Your task to perform on an android device: Go to Android settings Image 0: 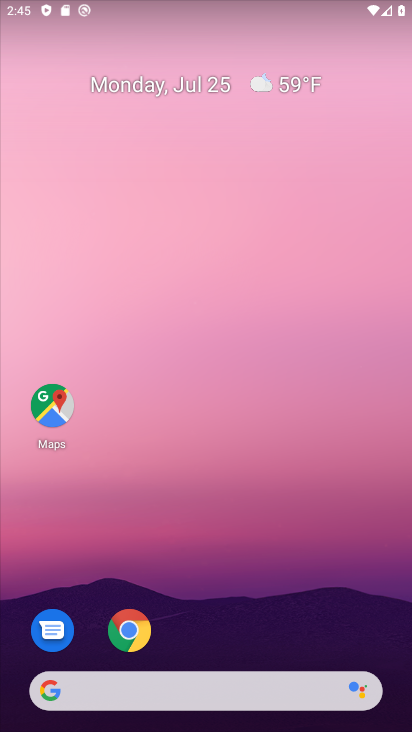
Step 0: drag from (268, 645) to (254, 5)
Your task to perform on an android device: Go to Android settings Image 1: 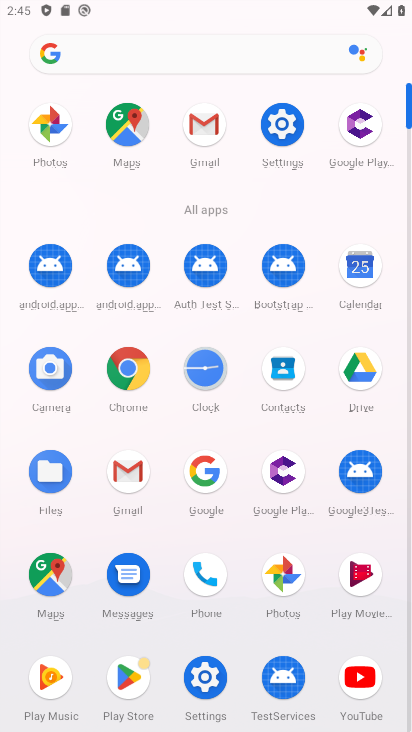
Step 1: click (290, 135)
Your task to perform on an android device: Go to Android settings Image 2: 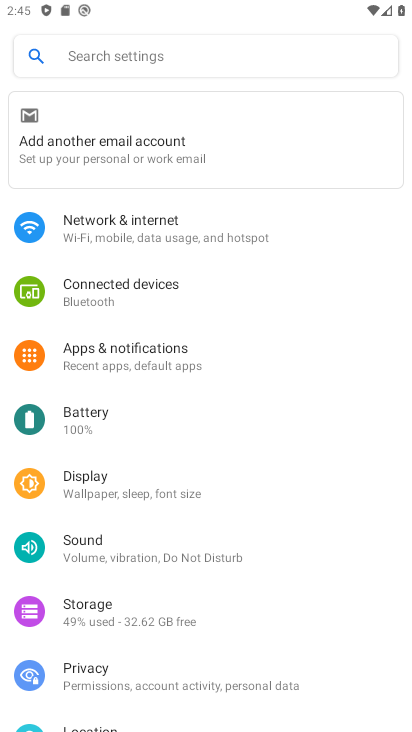
Step 2: drag from (106, 633) to (36, 66)
Your task to perform on an android device: Go to Android settings Image 3: 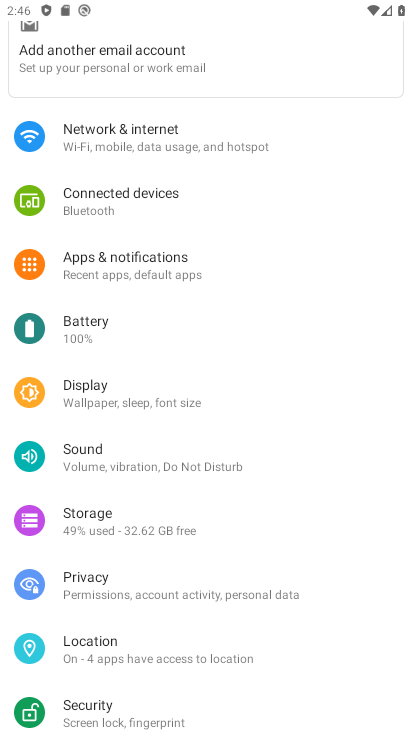
Step 3: drag from (23, 509) to (4, 43)
Your task to perform on an android device: Go to Android settings Image 4: 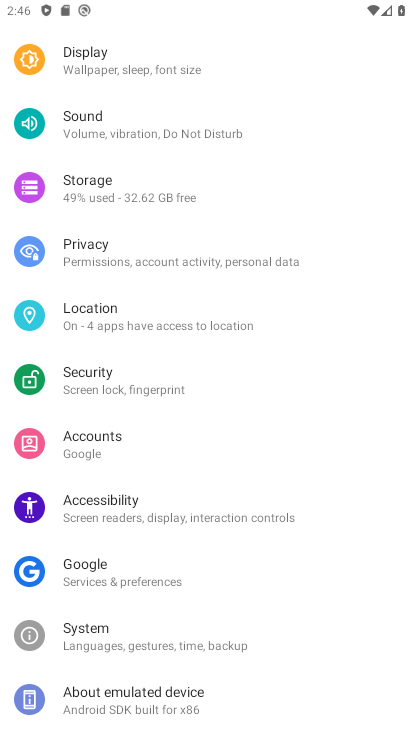
Step 4: click (109, 632)
Your task to perform on an android device: Go to Android settings Image 5: 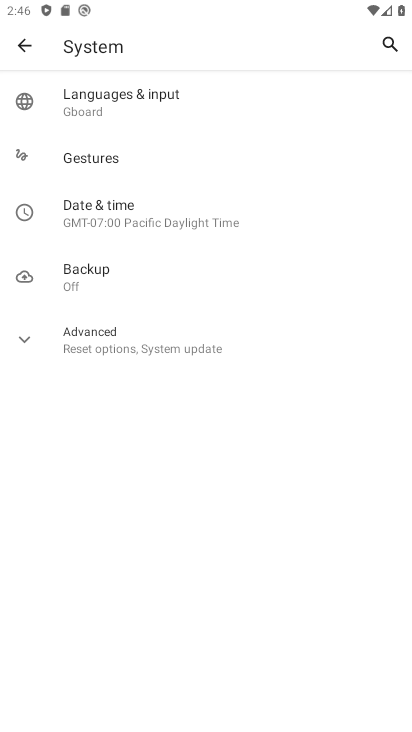
Step 5: task complete